Your task to perform on an android device: allow notifications from all sites in the chrome app Image 0: 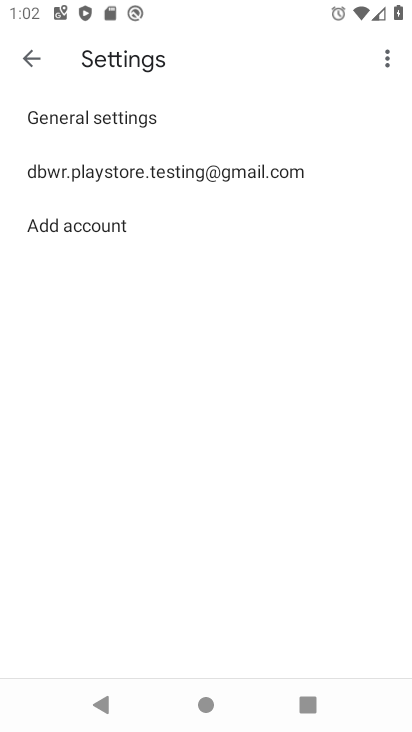
Step 0: press home button
Your task to perform on an android device: allow notifications from all sites in the chrome app Image 1: 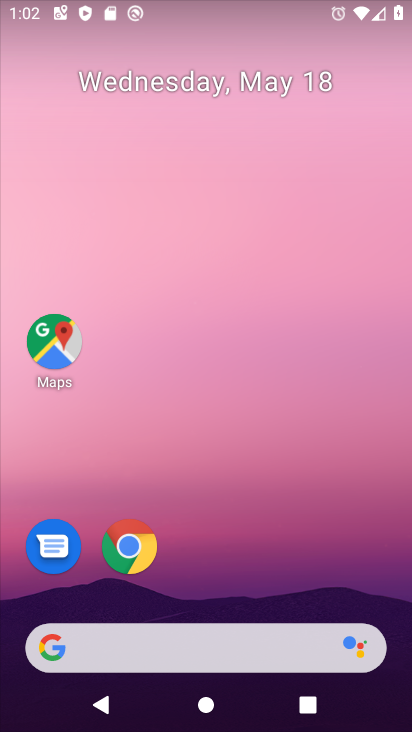
Step 1: click (138, 566)
Your task to perform on an android device: allow notifications from all sites in the chrome app Image 2: 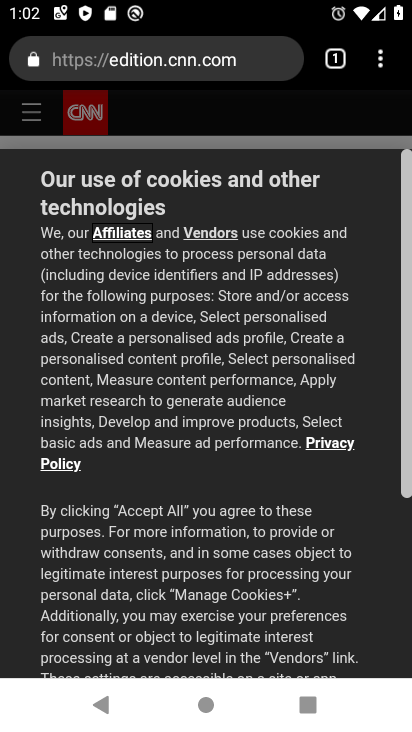
Step 2: click (386, 72)
Your task to perform on an android device: allow notifications from all sites in the chrome app Image 3: 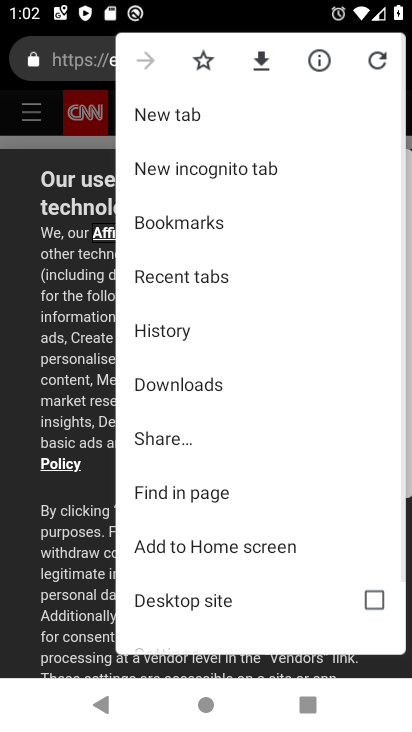
Step 3: drag from (217, 575) to (213, 170)
Your task to perform on an android device: allow notifications from all sites in the chrome app Image 4: 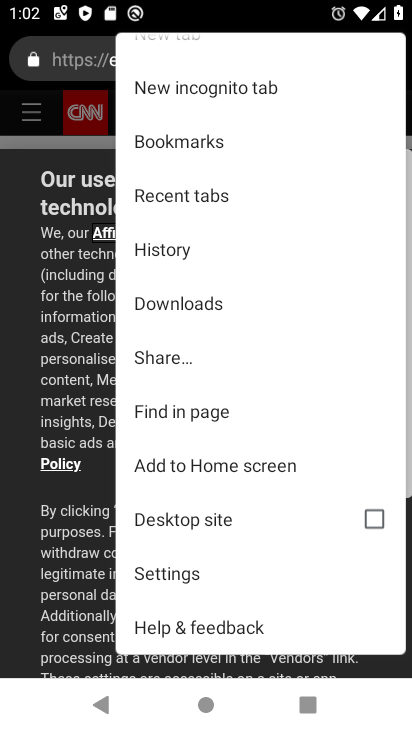
Step 4: click (181, 575)
Your task to perform on an android device: allow notifications from all sites in the chrome app Image 5: 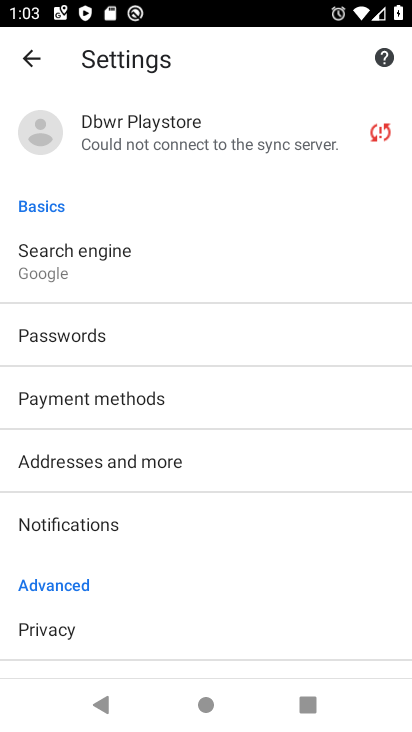
Step 5: drag from (178, 538) to (176, 255)
Your task to perform on an android device: allow notifications from all sites in the chrome app Image 6: 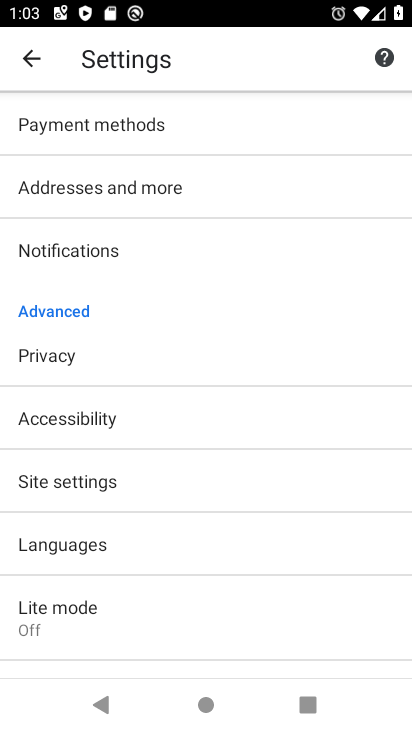
Step 6: click (86, 267)
Your task to perform on an android device: allow notifications from all sites in the chrome app Image 7: 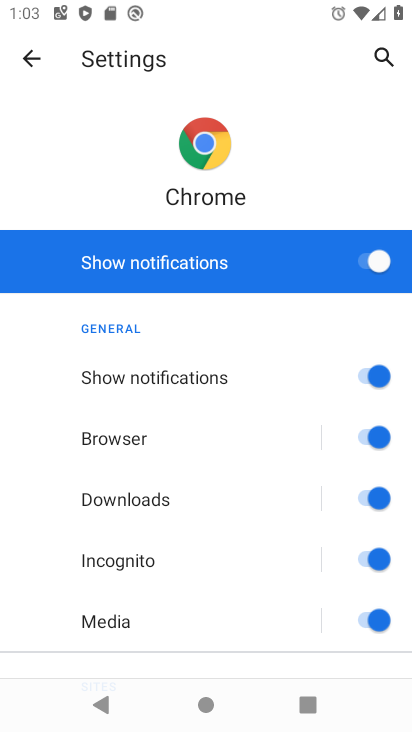
Step 7: task complete